Your task to perform on an android device: turn vacation reply on in the gmail app Image 0: 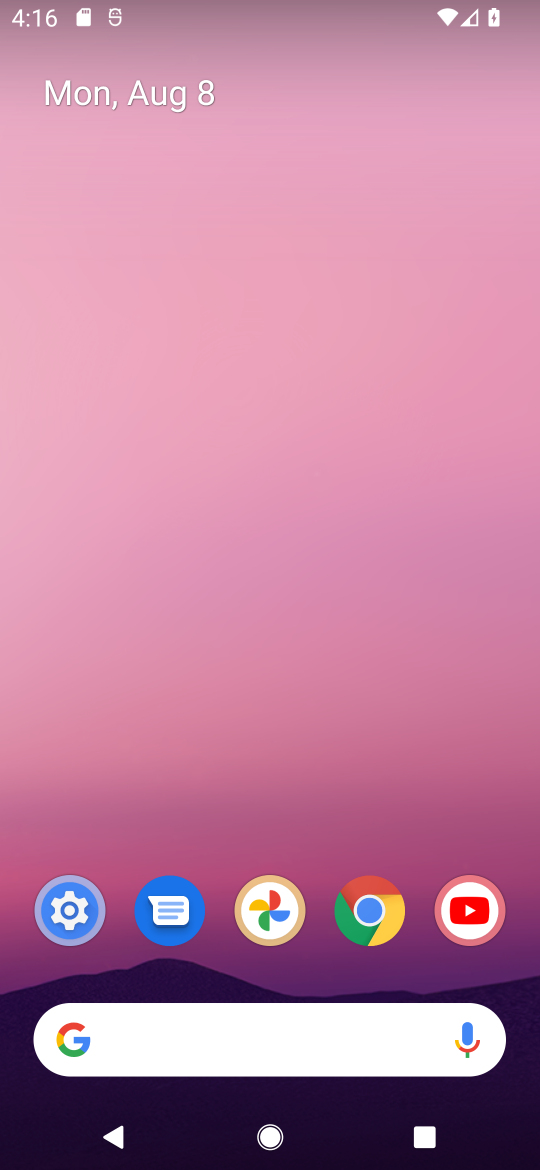
Step 0: press home button
Your task to perform on an android device: turn vacation reply on in the gmail app Image 1: 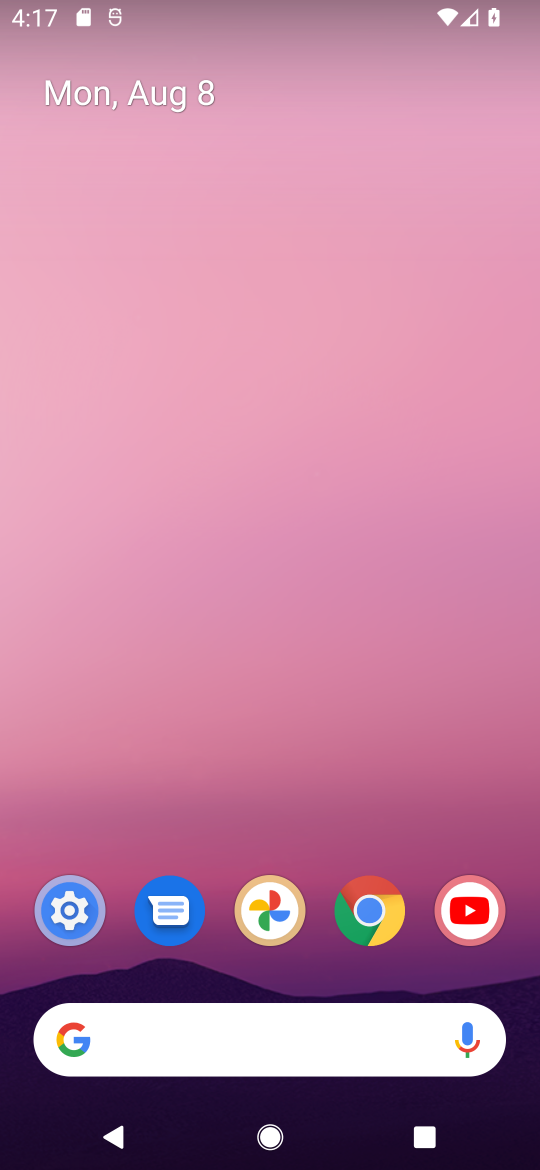
Step 1: drag from (313, 968) to (337, 244)
Your task to perform on an android device: turn vacation reply on in the gmail app Image 2: 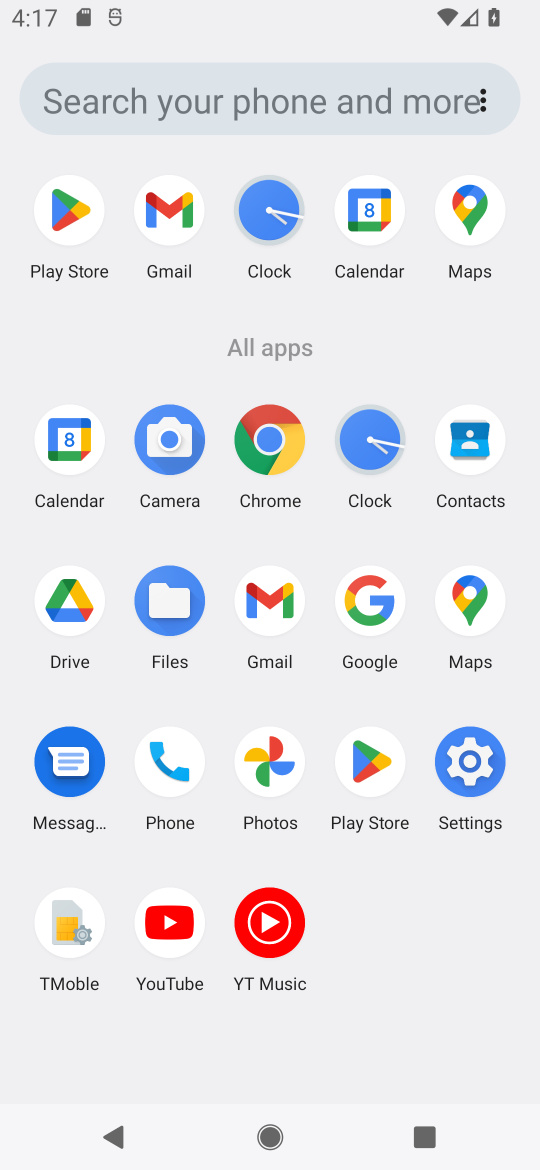
Step 2: click (282, 592)
Your task to perform on an android device: turn vacation reply on in the gmail app Image 3: 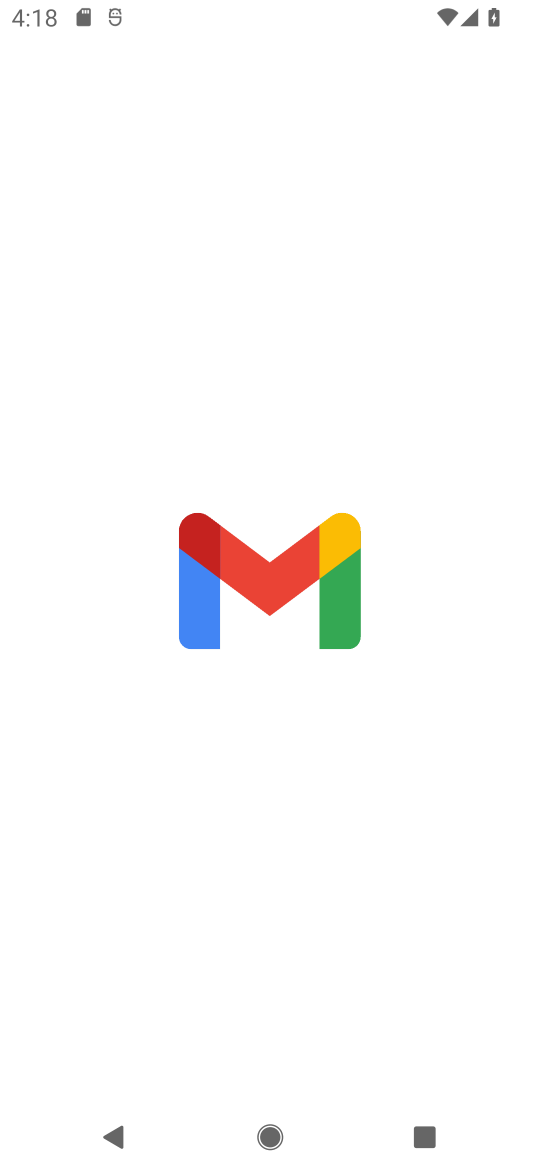
Step 3: task complete